Your task to perform on an android device: turn notification dots on Image 0: 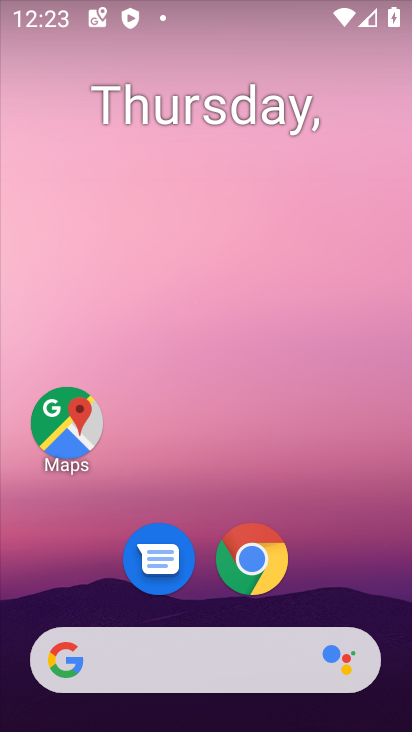
Step 0: drag from (346, 571) to (294, 4)
Your task to perform on an android device: turn notification dots on Image 1: 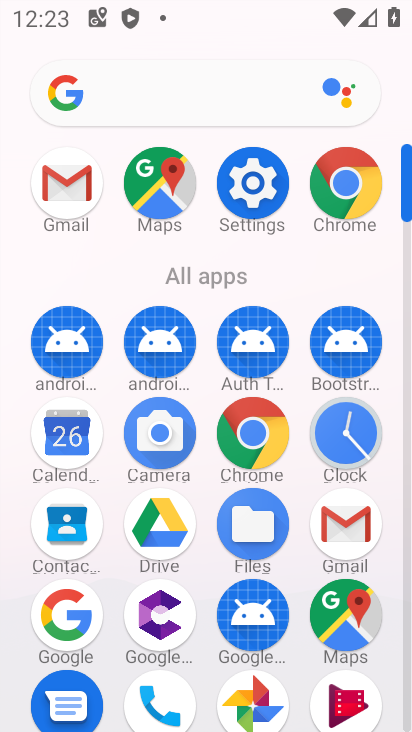
Step 1: click (257, 203)
Your task to perform on an android device: turn notification dots on Image 2: 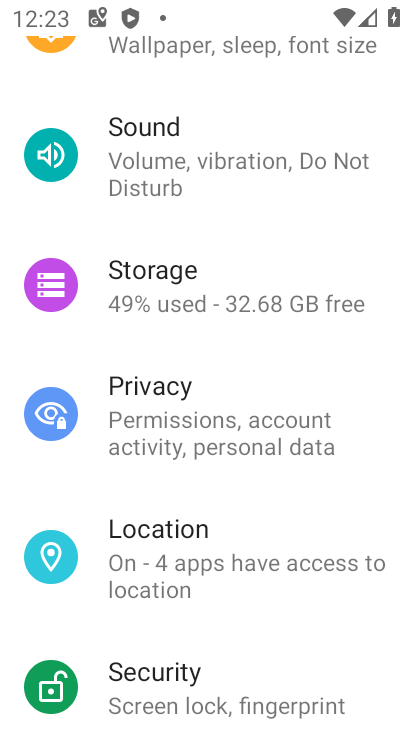
Step 2: drag from (233, 238) to (208, 511)
Your task to perform on an android device: turn notification dots on Image 3: 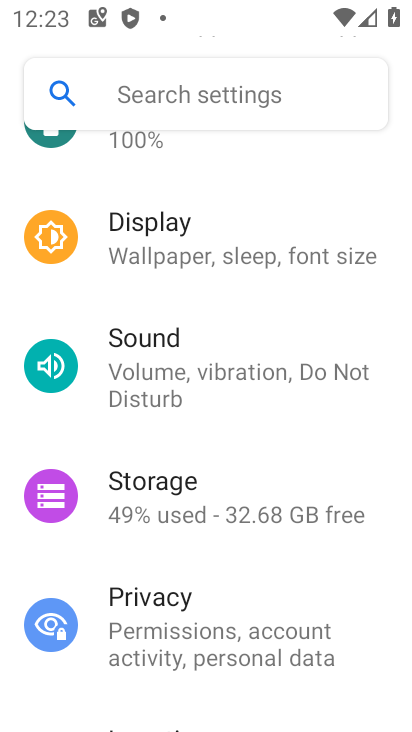
Step 3: drag from (194, 171) to (167, 547)
Your task to perform on an android device: turn notification dots on Image 4: 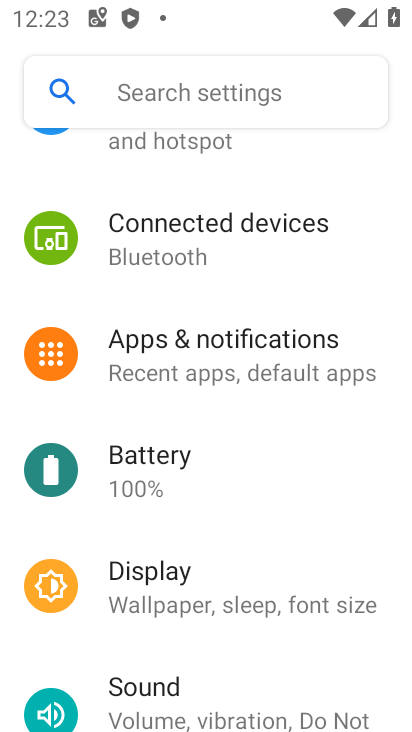
Step 4: click (192, 341)
Your task to perform on an android device: turn notification dots on Image 5: 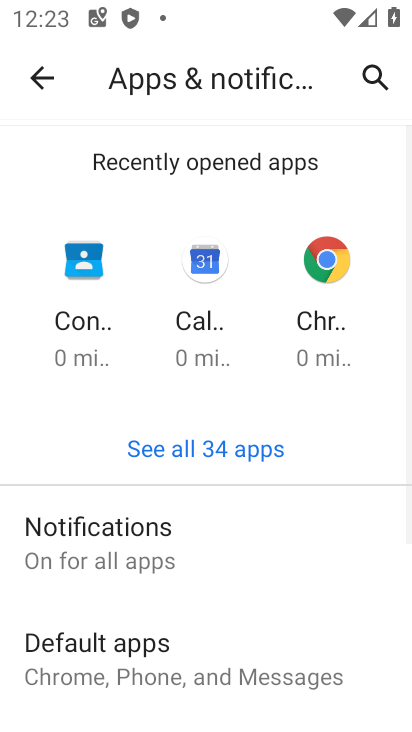
Step 5: click (184, 548)
Your task to perform on an android device: turn notification dots on Image 6: 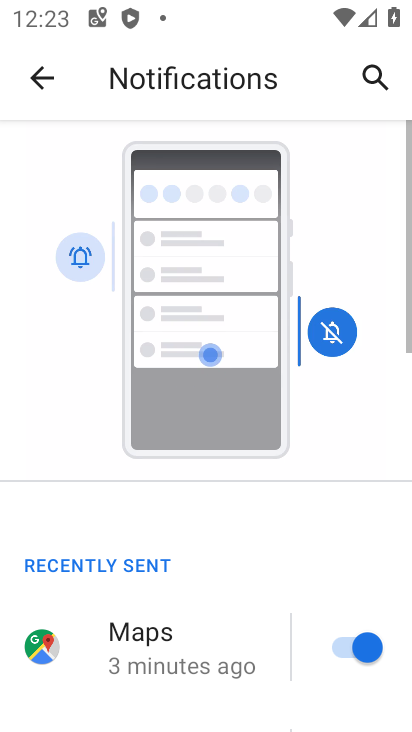
Step 6: drag from (203, 637) to (191, 159)
Your task to perform on an android device: turn notification dots on Image 7: 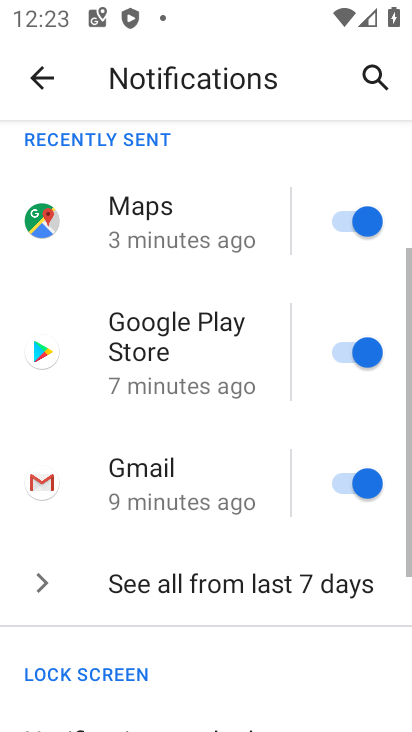
Step 7: drag from (201, 694) to (190, 266)
Your task to perform on an android device: turn notification dots on Image 8: 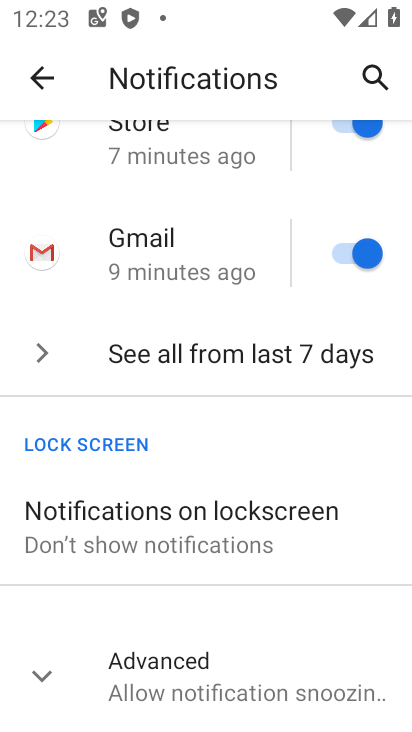
Step 8: click (224, 642)
Your task to perform on an android device: turn notification dots on Image 9: 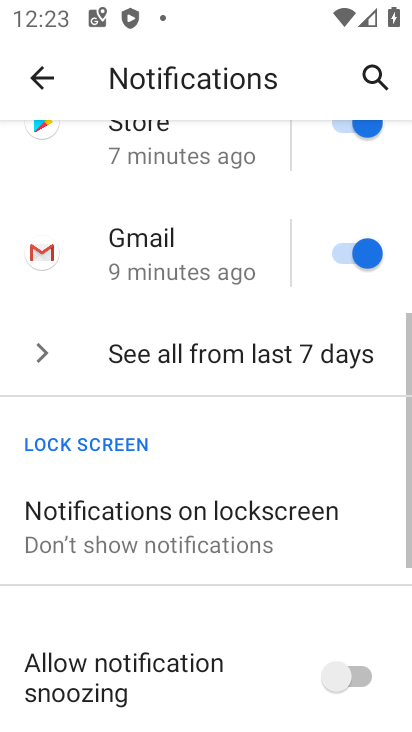
Step 9: task complete